Your task to perform on an android device: What's the weather today? Image 0: 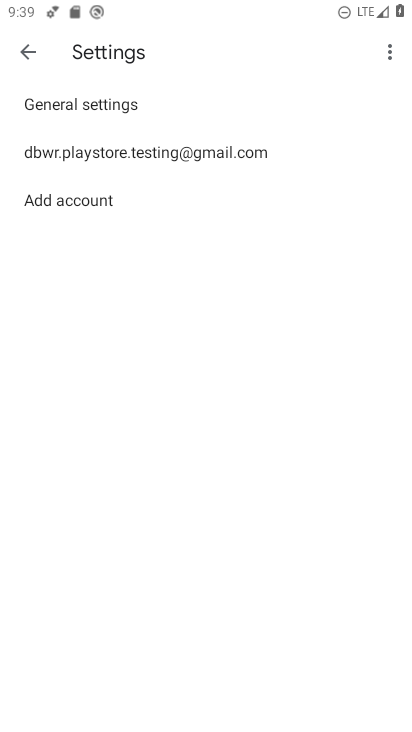
Step 0: press home button
Your task to perform on an android device: What's the weather today? Image 1: 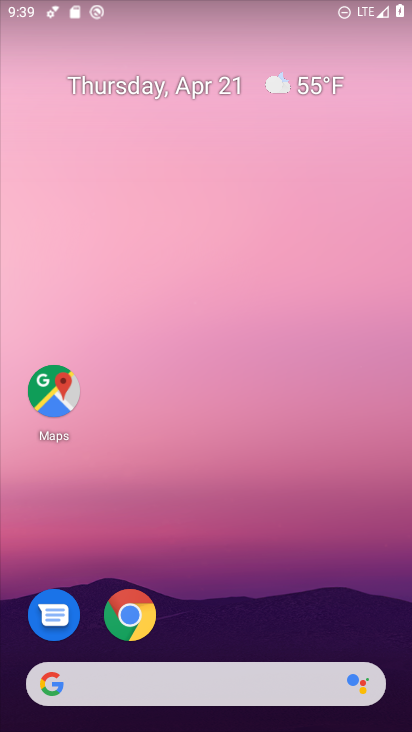
Step 1: click (286, 84)
Your task to perform on an android device: What's the weather today? Image 2: 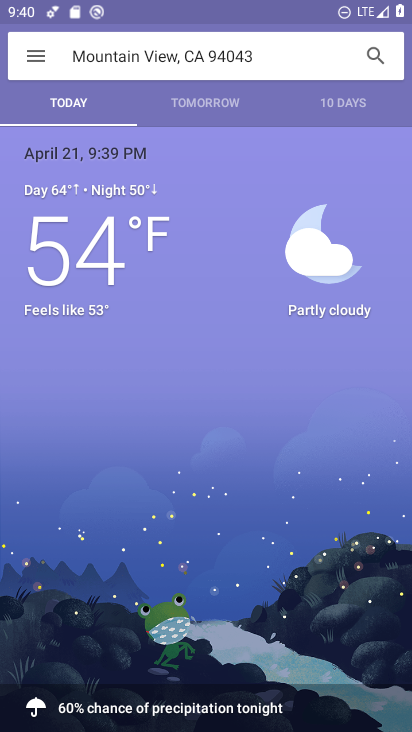
Step 2: task complete